Your task to perform on an android device: Go to Google Image 0: 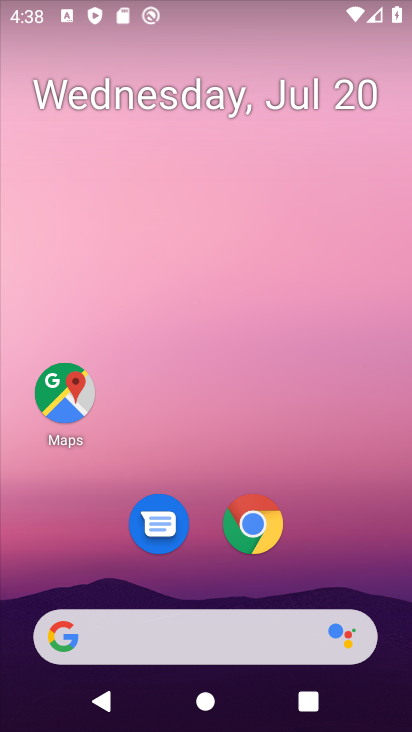
Step 0: drag from (211, 391) to (281, 0)
Your task to perform on an android device: Go to Google Image 1: 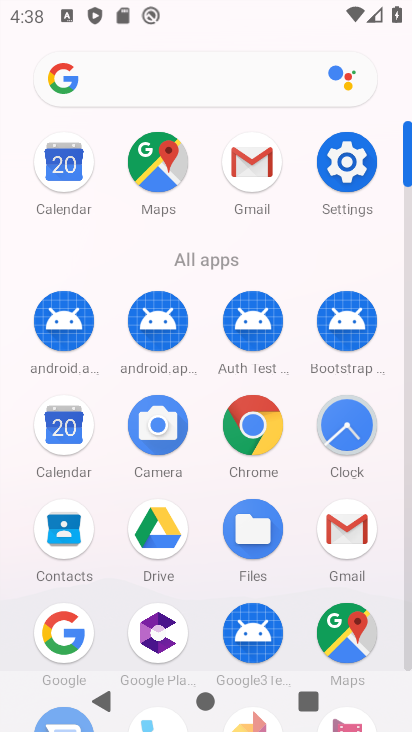
Step 1: drag from (227, 389) to (258, 154)
Your task to perform on an android device: Go to Google Image 2: 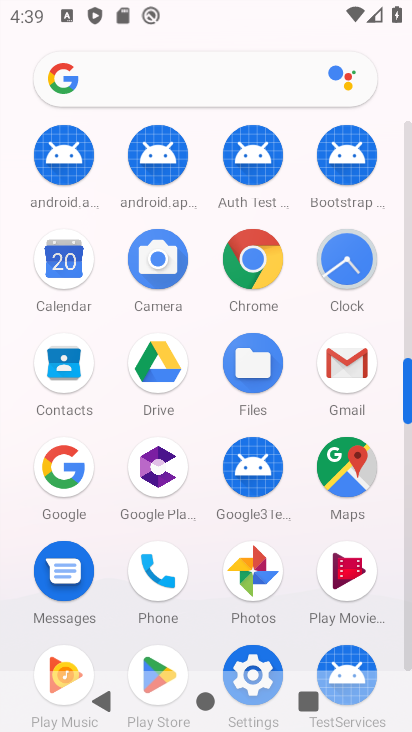
Step 2: click (69, 457)
Your task to perform on an android device: Go to Google Image 3: 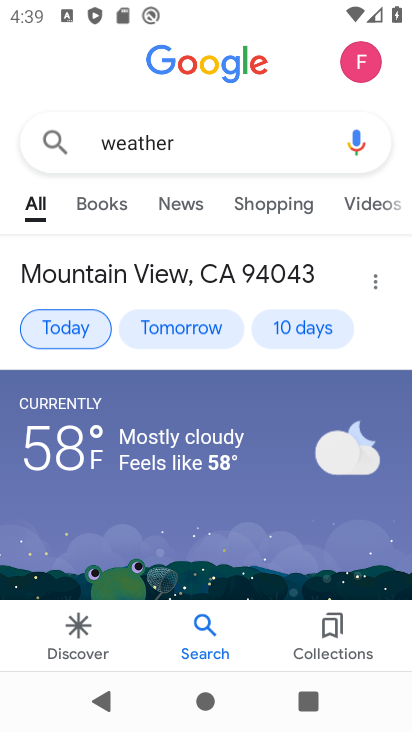
Step 3: click (241, 144)
Your task to perform on an android device: Go to Google Image 4: 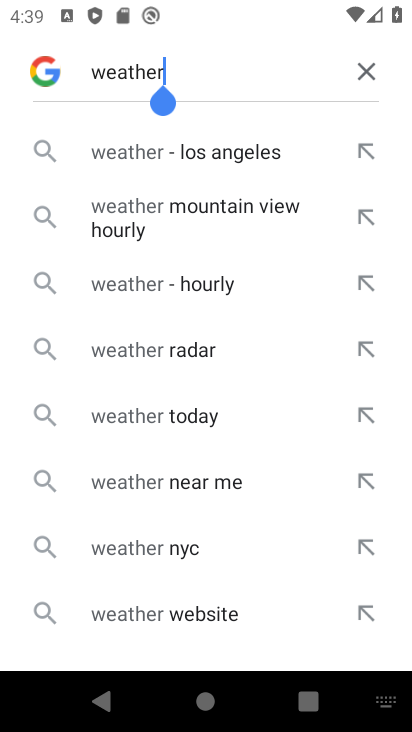
Step 4: click (361, 69)
Your task to perform on an android device: Go to Google Image 5: 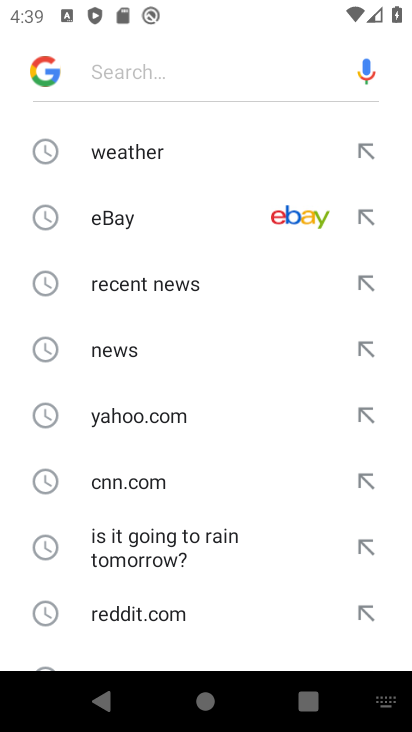
Step 5: click (45, 67)
Your task to perform on an android device: Go to Google Image 6: 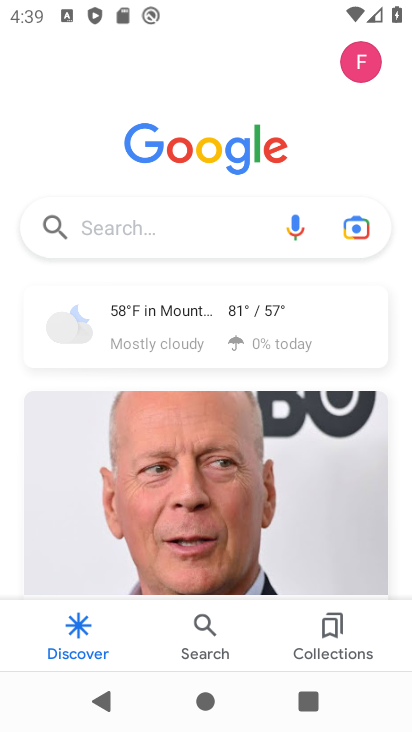
Step 6: task complete